Your task to perform on an android device: see tabs open on other devices in the chrome app Image 0: 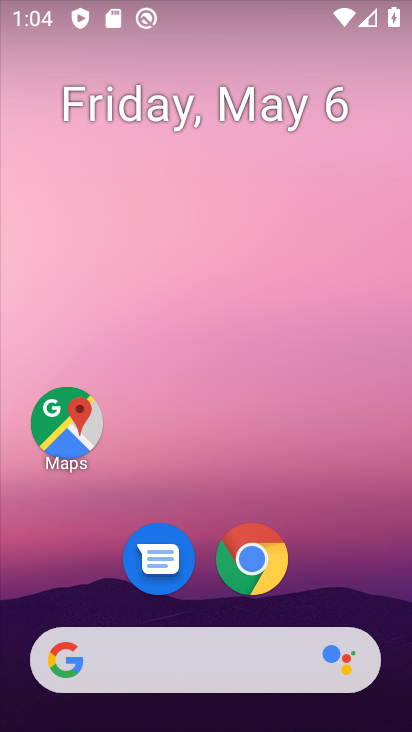
Step 0: drag from (134, 646) to (332, 17)
Your task to perform on an android device: see tabs open on other devices in the chrome app Image 1: 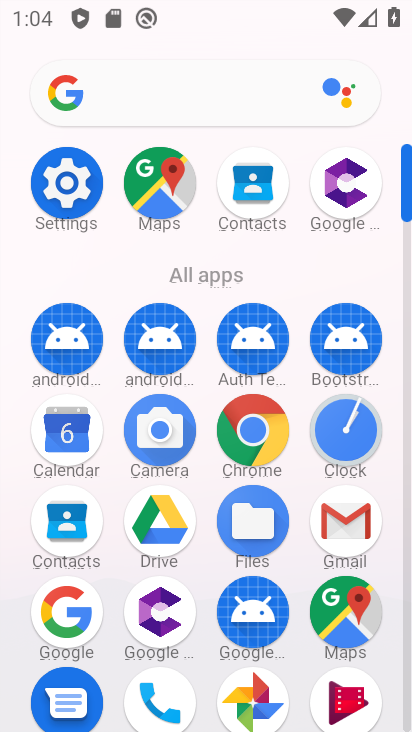
Step 1: click (257, 426)
Your task to perform on an android device: see tabs open on other devices in the chrome app Image 2: 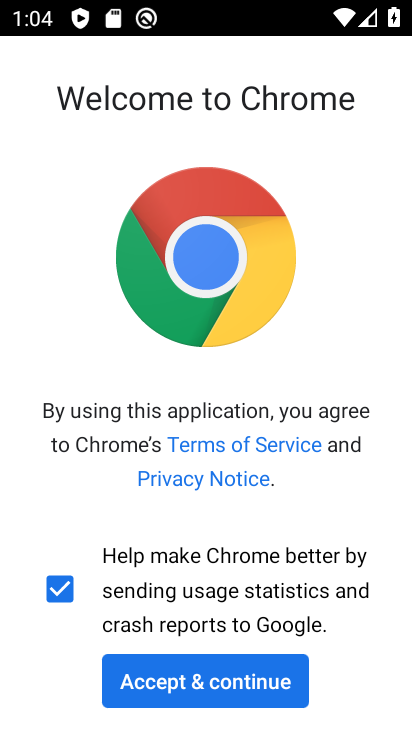
Step 2: click (201, 685)
Your task to perform on an android device: see tabs open on other devices in the chrome app Image 3: 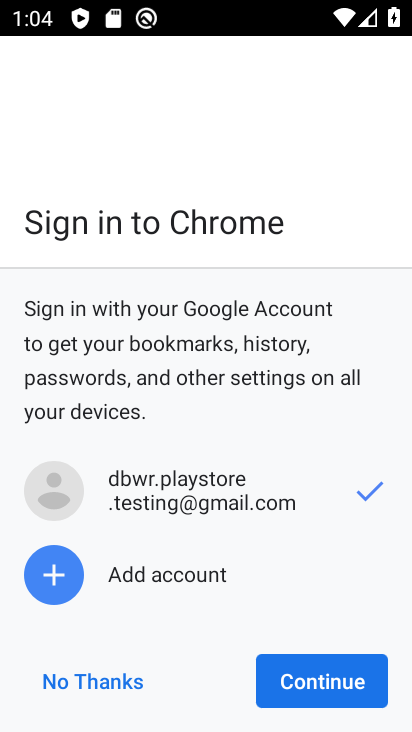
Step 3: click (285, 685)
Your task to perform on an android device: see tabs open on other devices in the chrome app Image 4: 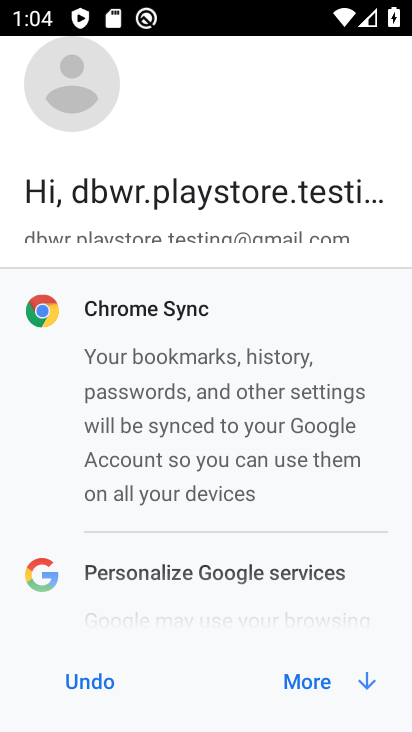
Step 4: click (293, 684)
Your task to perform on an android device: see tabs open on other devices in the chrome app Image 5: 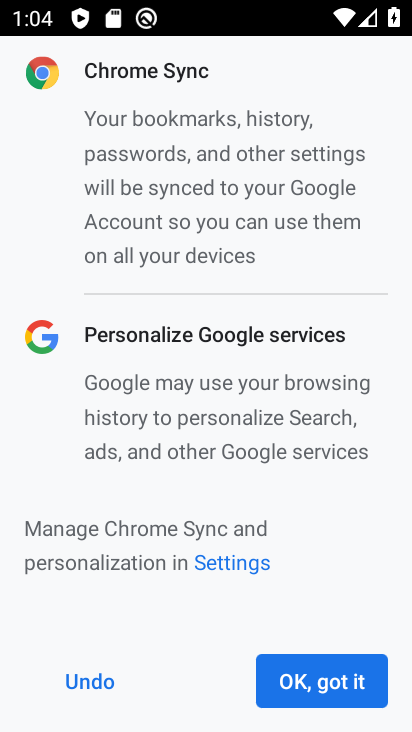
Step 5: click (297, 676)
Your task to perform on an android device: see tabs open on other devices in the chrome app Image 6: 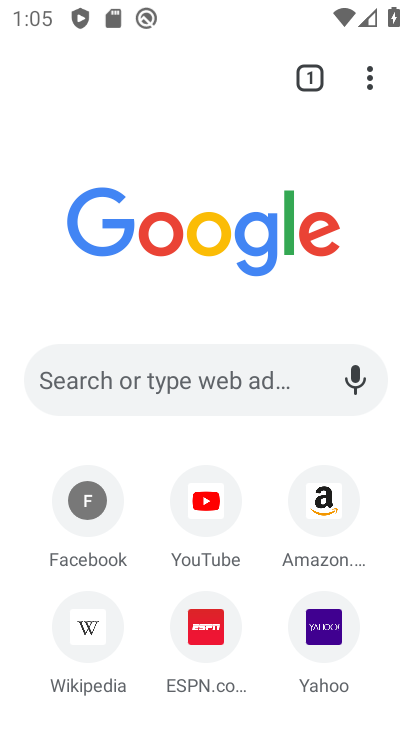
Step 6: drag from (366, 82) to (137, 367)
Your task to perform on an android device: see tabs open on other devices in the chrome app Image 7: 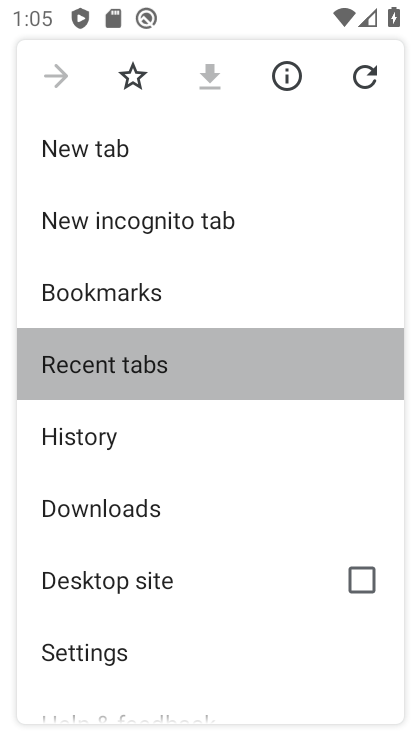
Step 7: click (137, 367)
Your task to perform on an android device: see tabs open on other devices in the chrome app Image 8: 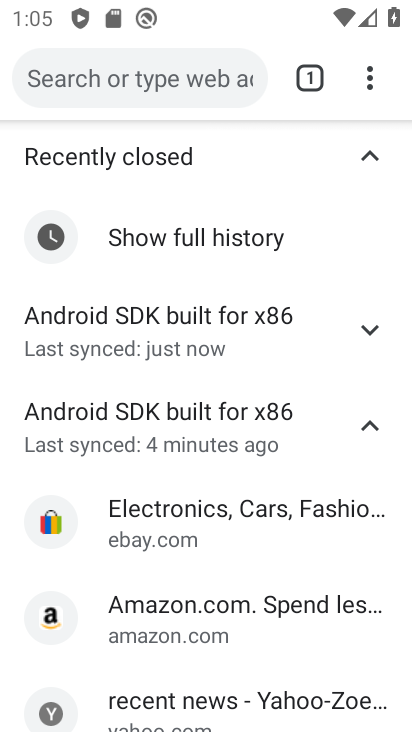
Step 8: task complete